Your task to perform on an android device: turn on javascript in the chrome app Image 0: 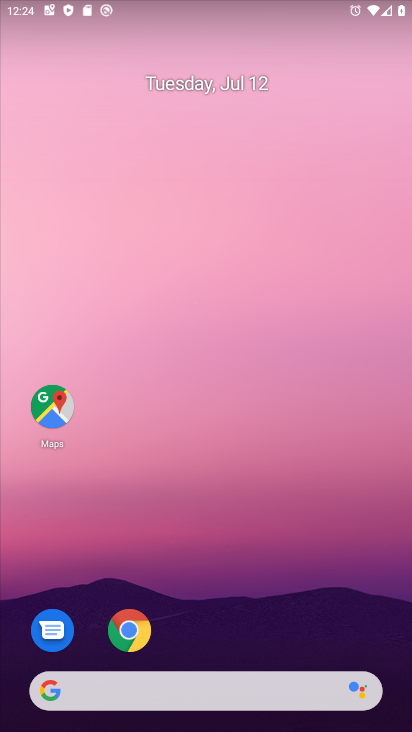
Step 0: click (128, 630)
Your task to perform on an android device: turn on javascript in the chrome app Image 1: 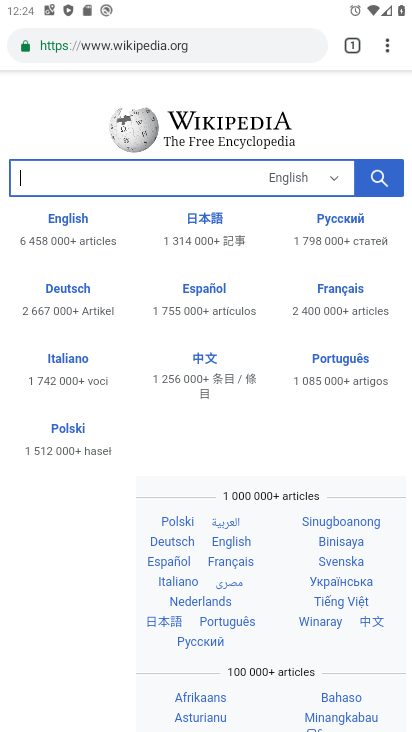
Step 1: click (386, 46)
Your task to perform on an android device: turn on javascript in the chrome app Image 2: 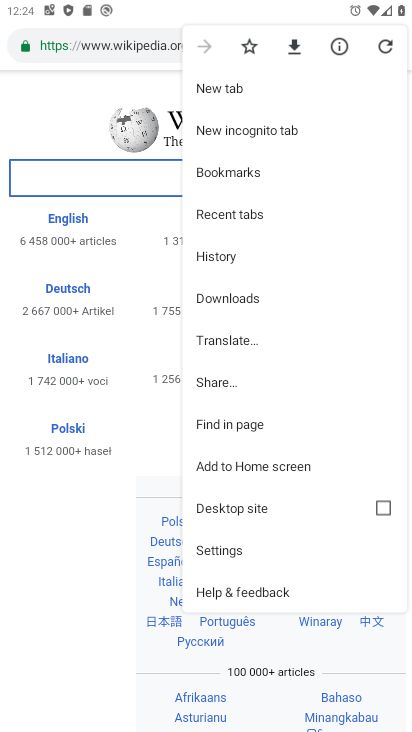
Step 2: click (230, 551)
Your task to perform on an android device: turn on javascript in the chrome app Image 3: 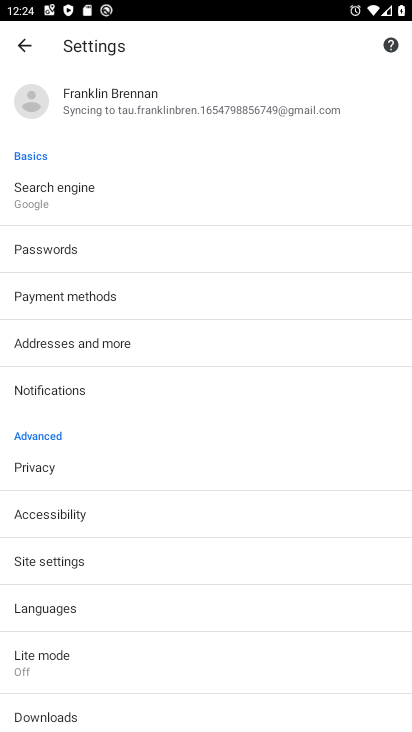
Step 3: click (64, 561)
Your task to perform on an android device: turn on javascript in the chrome app Image 4: 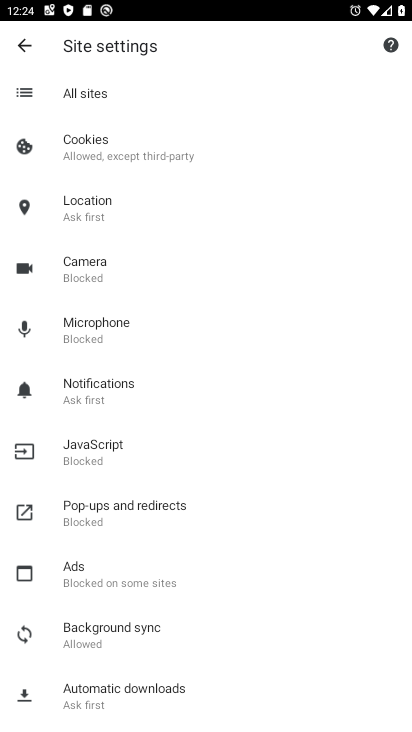
Step 4: click (85, 457)
Your task to perform on an android device: turn on javascript in the chrome app Image 5: 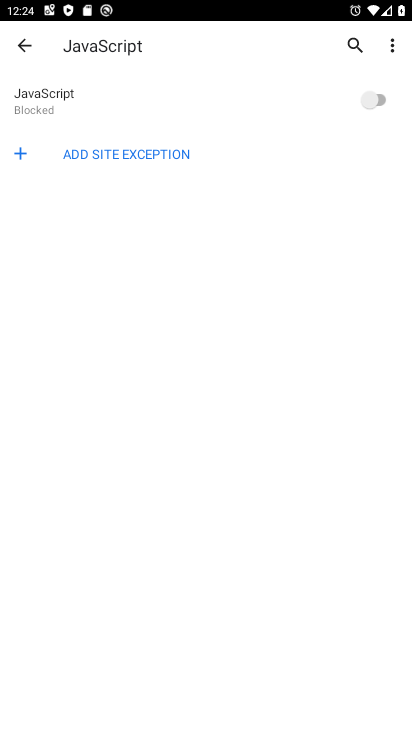
Step 5: click (372, 103)
Your task to perform on an android device: turn on javascript in the chrome app Image 6: 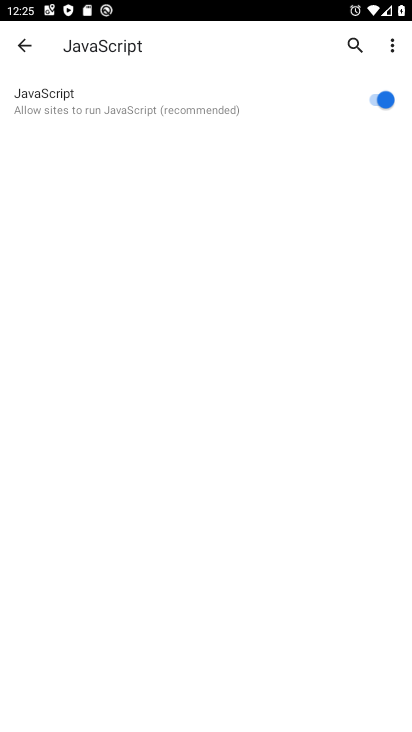
Step 6: task complete